Your task to perform on an android device: Is it going to rain tomorrow? Image 0: 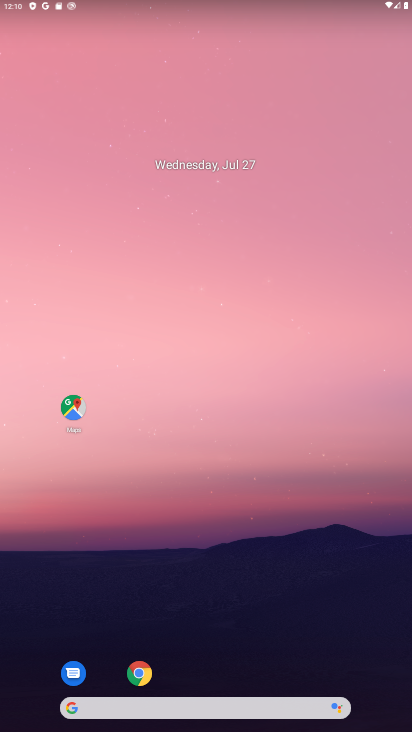
Step 0: click (262, 707)
Your task to perform on an android device: Is it going to rain tomorrow? Image 1: 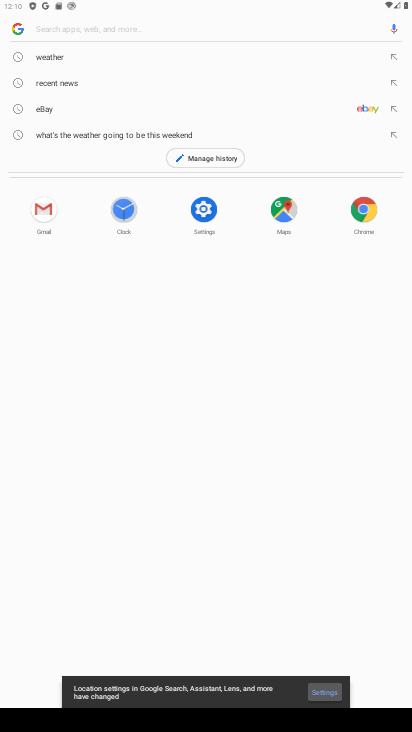
Step 1: type "Is it going to rain tomorrow?"
Your task to perform on an android device: Is it going to rain tomorrow? Image 2: 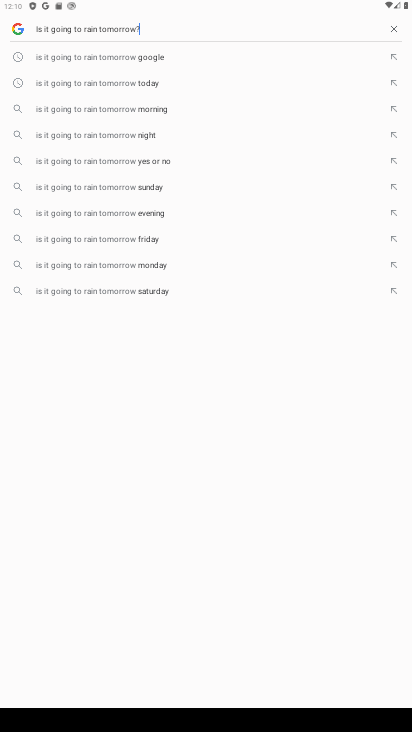
Step 2: click (99, 61)
Your task to perform on an android device: Is it going to rain tomorrow? Image 3: 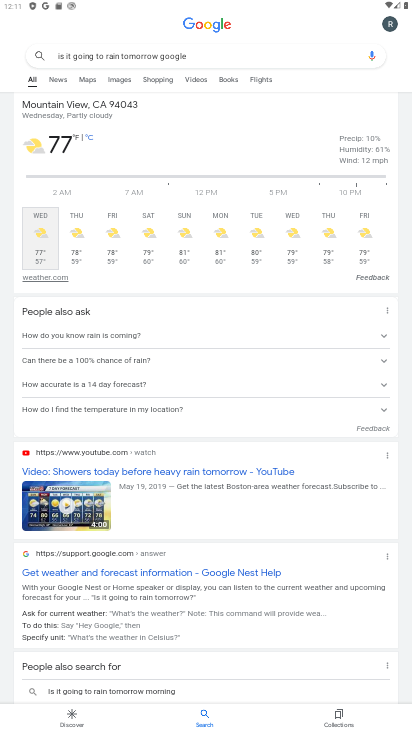
Step 3: task complete